Your task to perform on an android device: toggle notification dots Image 0: 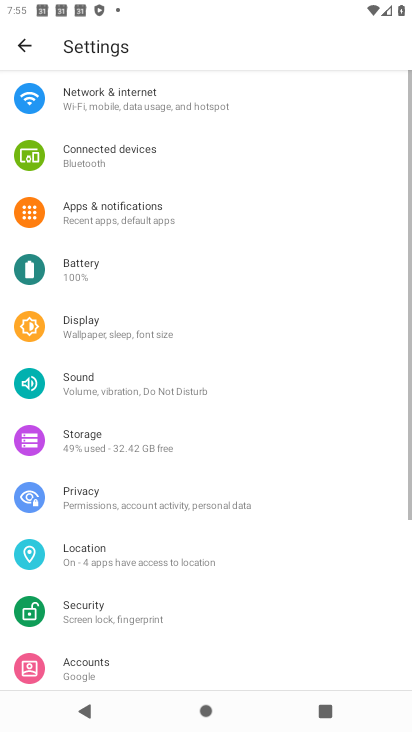
Step 0: click (245, 211)
Your task to perform on an android device: toggle notification dots Image 1: 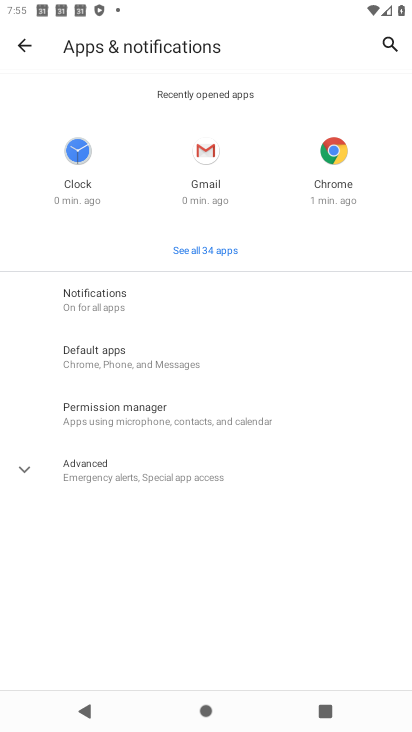
Step 1: click (124, 307)
Your task to perform on an android device: toggle notification dots Image 2: 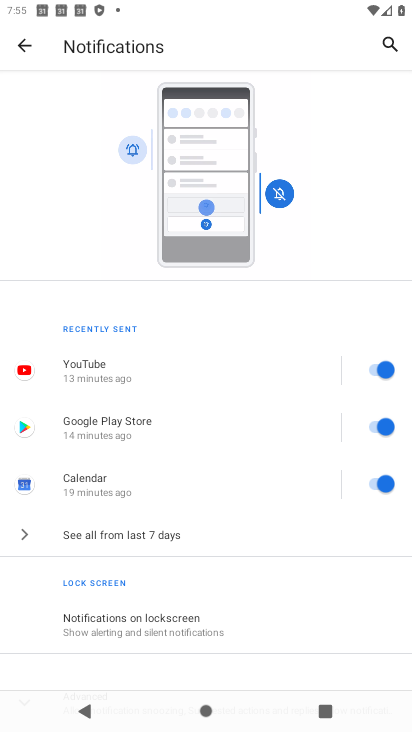
Step 2: drag from (240, 595) to (284, 250)
Your task to perform on an android device: toggle notification dots Image 3: 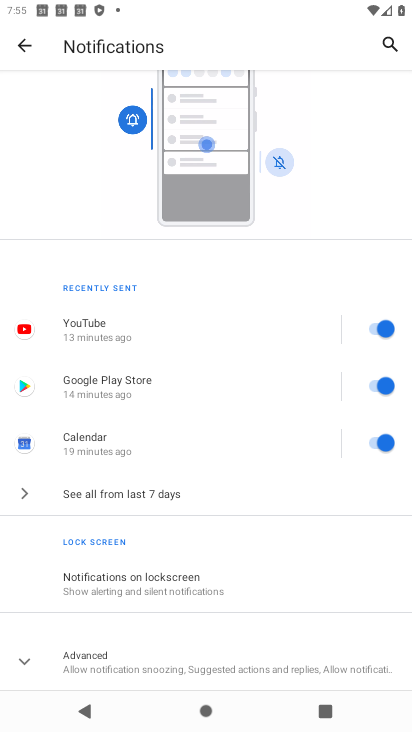
Step 3: click (172, 653)
Your task to perform on an android device: toggle notification dots Image 4: 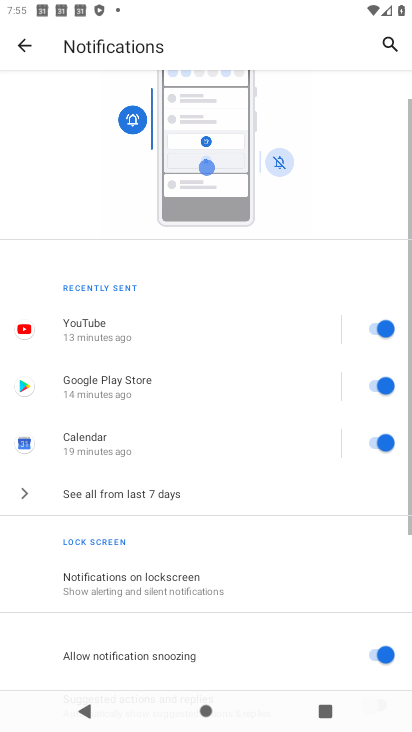
Step 4: drag from (172, 653) to (247, 164)
Your task to perform on an android device: toggle notification dots Image 5: 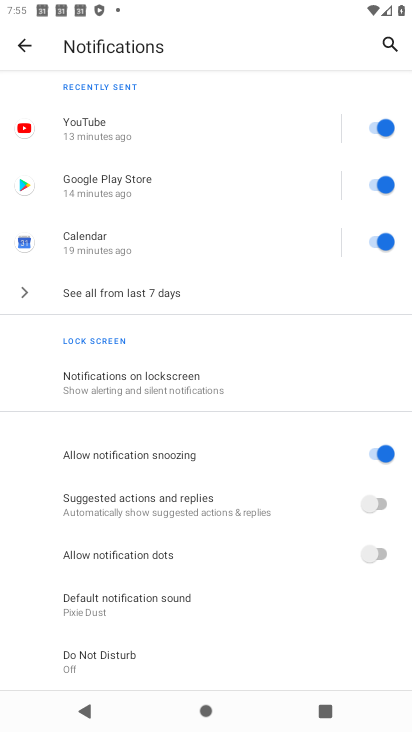
Step 5: click (384, 548)
Your task to perform on an android device: toggle notification dots Image 6: 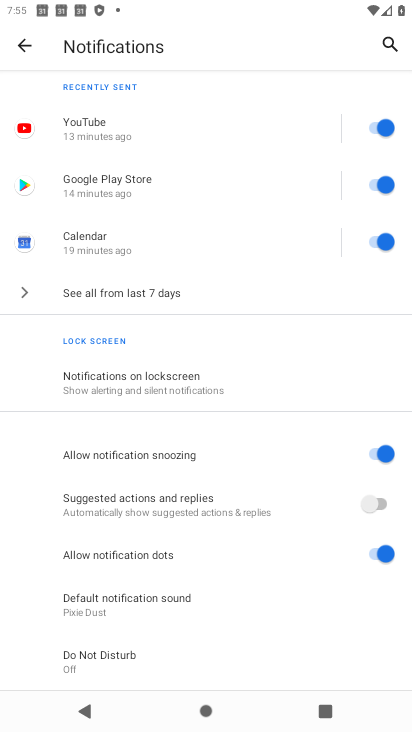
Step 6: click (384, 548)
Your task to perform on an android device: toggle notification dots Image 7: 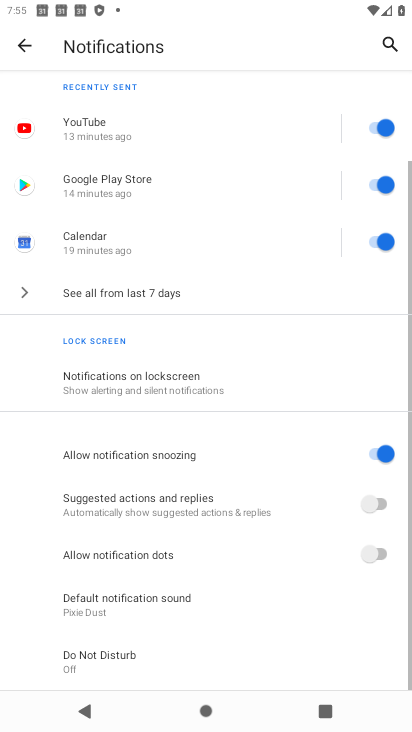
Step 7: click (384, 548)
Your task to perform on an android device: toggle notification dots Image 8: 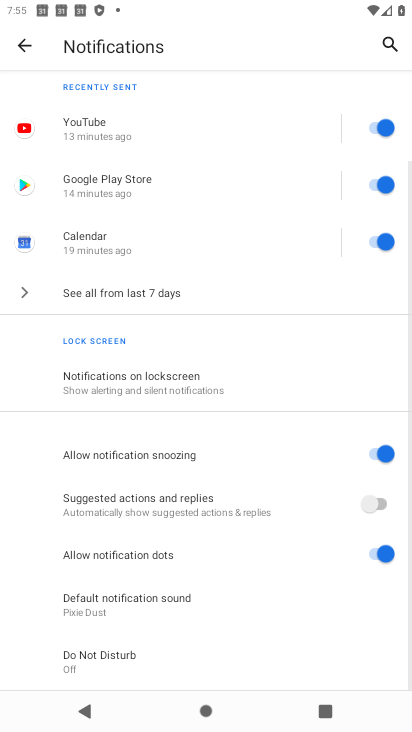
Step 8: task complete